Your task to perform on an android device: turn on sleep mode Image 0: 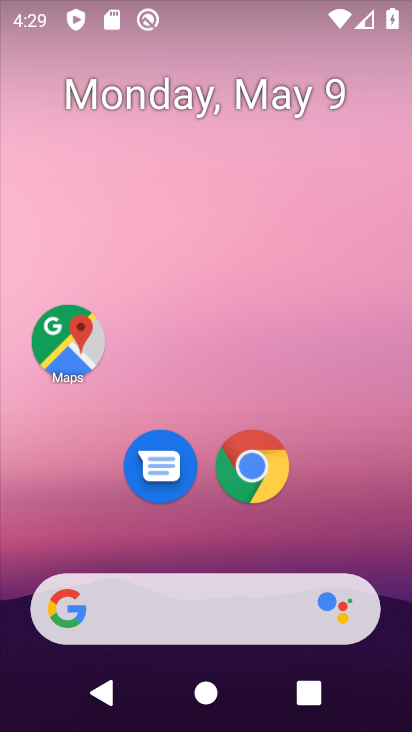
Step 0: drag from (336, 520) to (317, 23)
Your task to perform on an android device: turn on sleep mode Image 1: 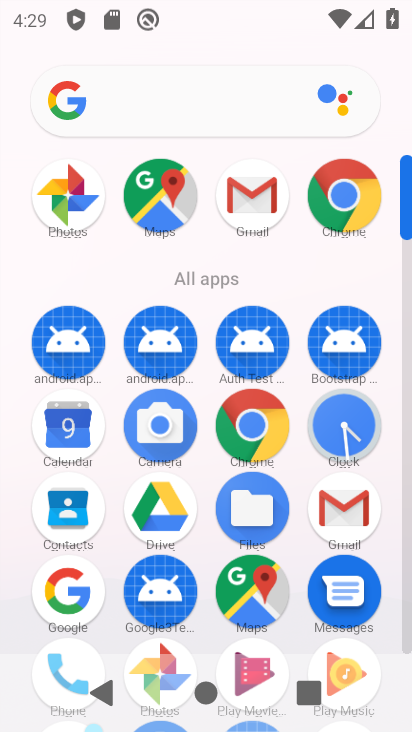
Step 1: drag from (16, 534) to (18, 217)
Your task to perform on an android device: turn on sleep mode Image 2: 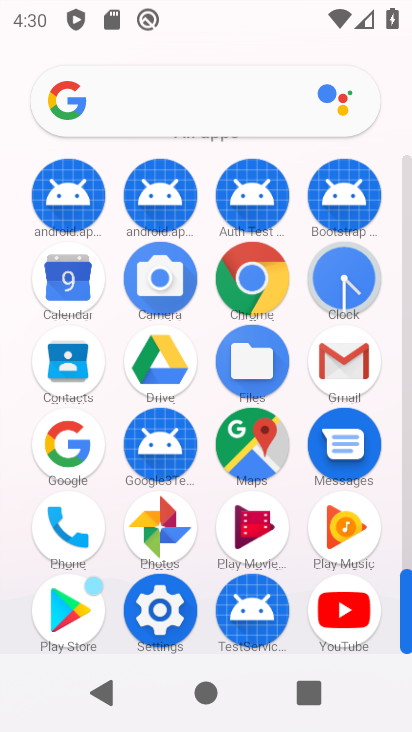
Step 2: click (158, 612)
Your task to perform on an android device: turn on sleep mode Image 3: 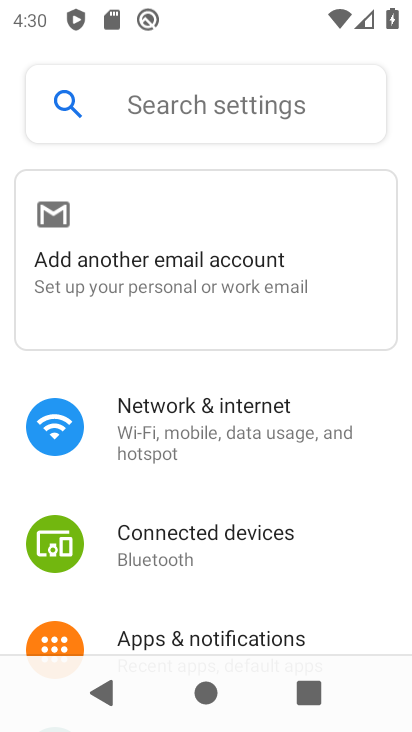
Step 3: drag from (7, 550) to (5, 261)
Your task to perform on an android device: turn on sleep mode Image 4: 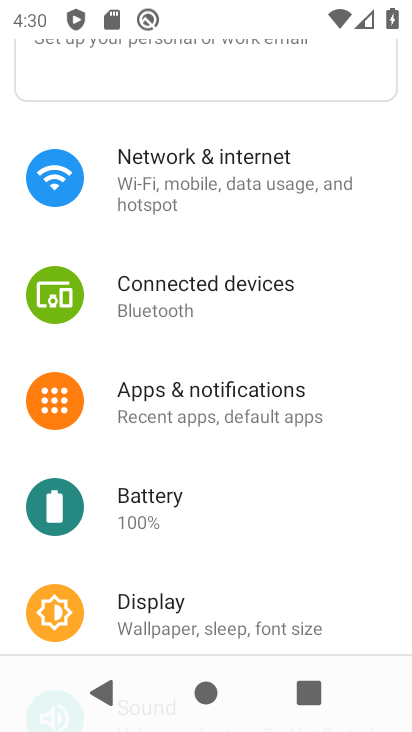
Step 4: drag from (254, 536) to (305, 177)
Your task to perform on an android device: turn on sleep mode Image 5: 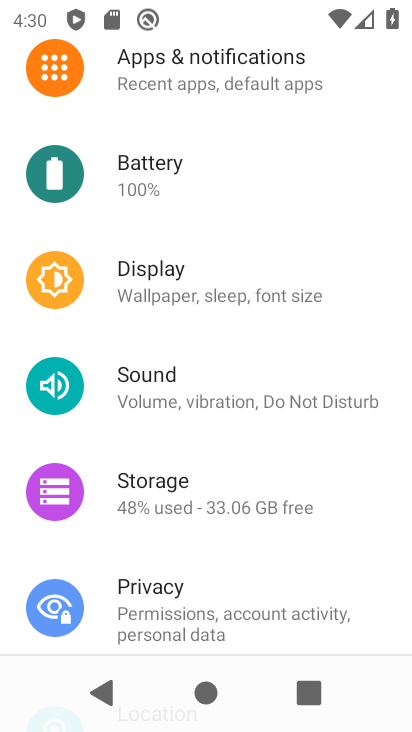
Step 5: drag from (248, 149) to (232, 548)
Your task to perform on an android device: turn on sleep mode Image 6: 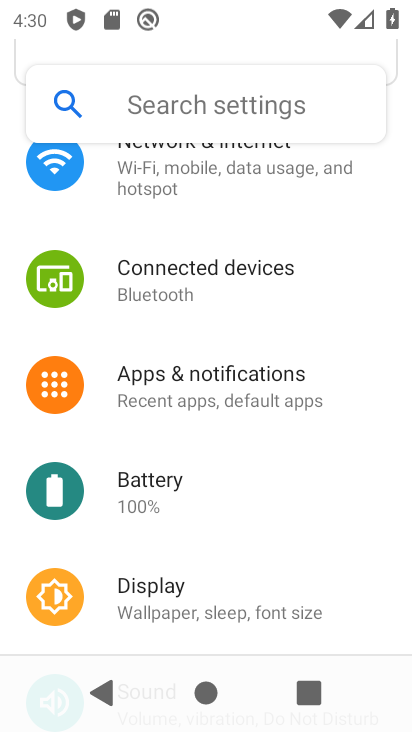
Step 6: drag from (298, 215) to (280, 533)
Your task to perform on an android device: turn on sleep mode Image 7: 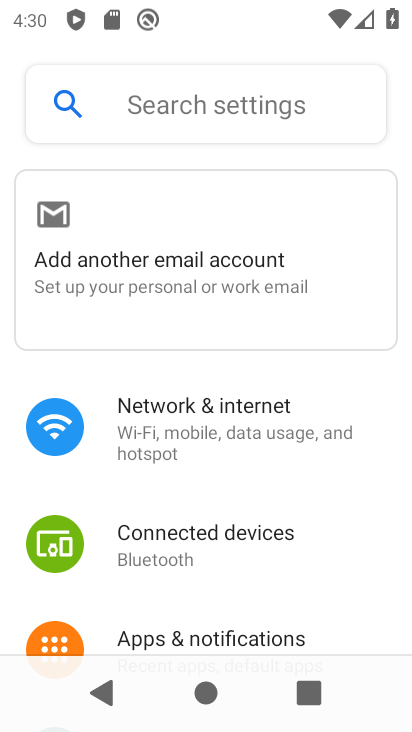
Step 7: drag from (287, 534) to (310, 233)
Your task to perform on an android device: turn on sleep mode Image 8: 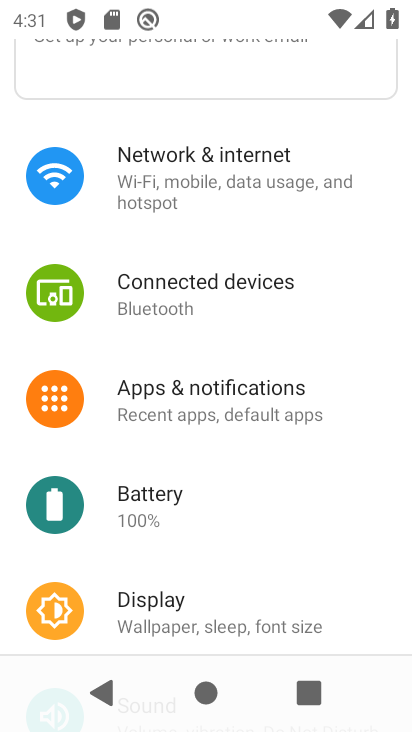
Step 8: drag from (261, 512) to (278, 311)
Your task to perform on an android device: turn on sleep mode Image 9: 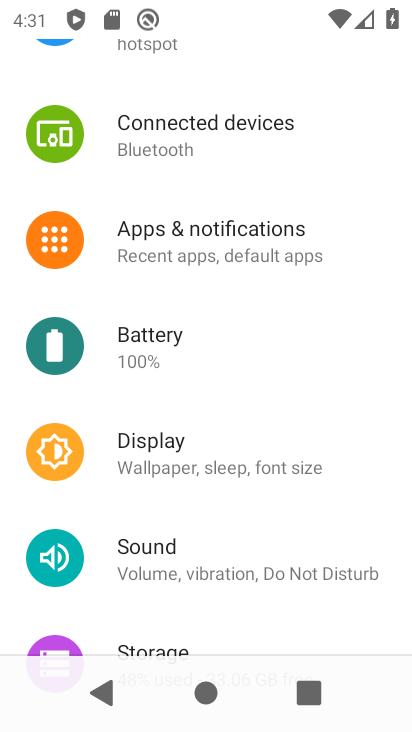
Step 9: drag from (294, 127) to (280, 500)
Your task to perform on an android device: turn on sleep mode Image 10: 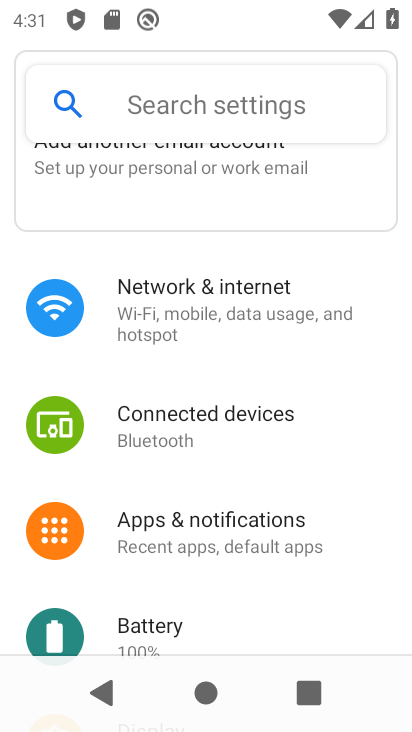
Step 10: drag from (287, 536) to (320, 207)
Your task to perform on an android device: turn on sleep mode Image 11: 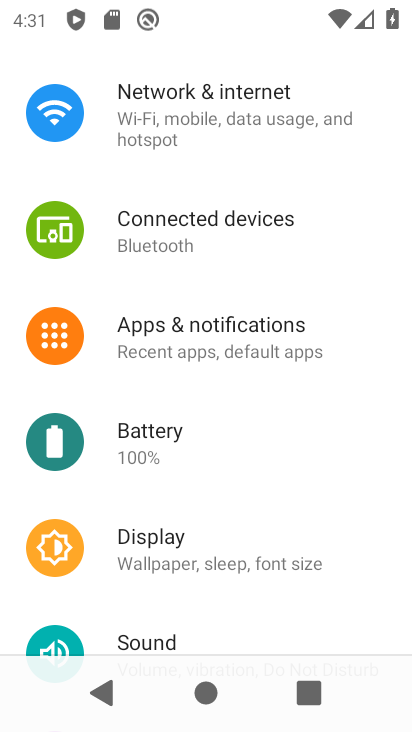
Step 11: drag from (294, 180) to (316, 256)
Your task to perform on an android device: turn on sleep mode Image 12: 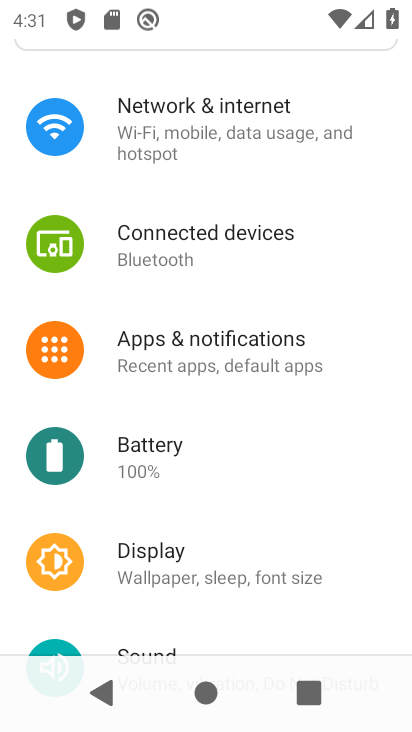
Step 12: drag from (299, 534) to (310, 141)
Your task to perform on an android device: turn on sleep mode Image 13: 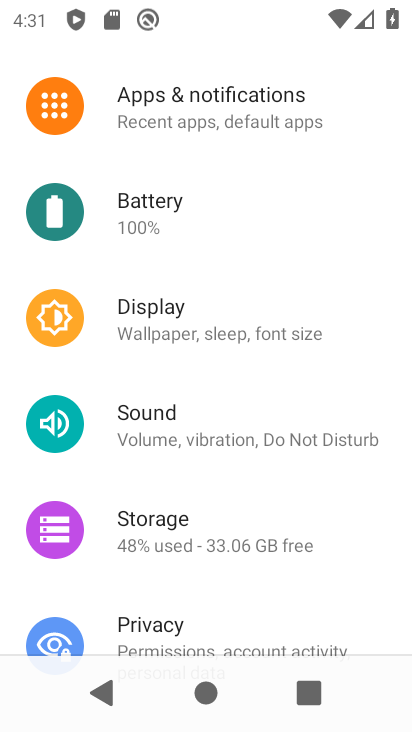
Step 13: drag from (309, 464) to (326, 162)
Your task to perform on an android device: turn on sleep mode Image 14: 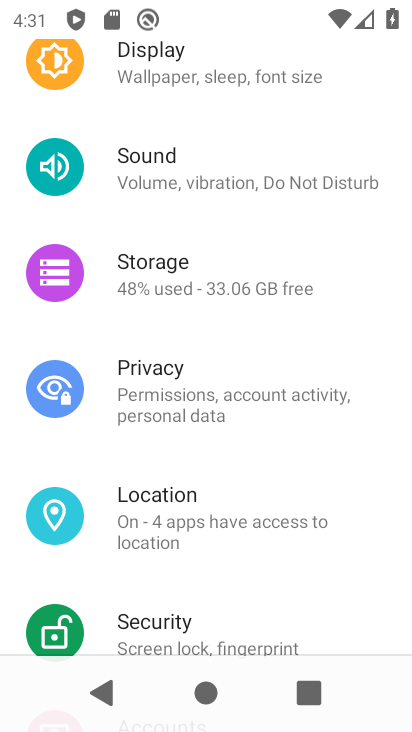
Step 14: drag from (305, 576) to (316, 150)
Your task to perform on an android device: turn on sleep mode Image 15: 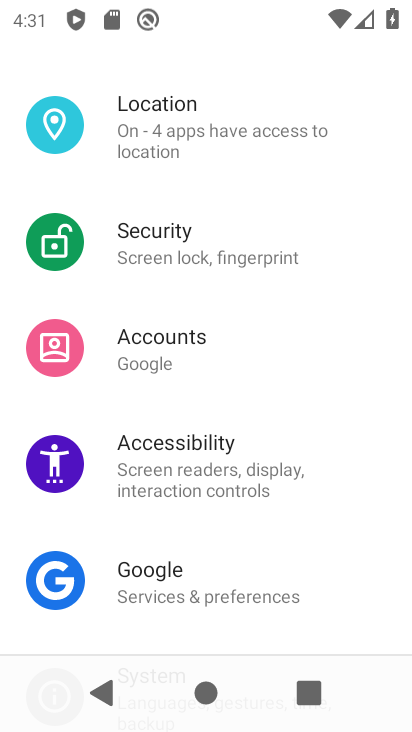
Step 15: drag from (300, 425) to (311, 112)
Your task to perform on an android device: turn on sleep mode Image 16: 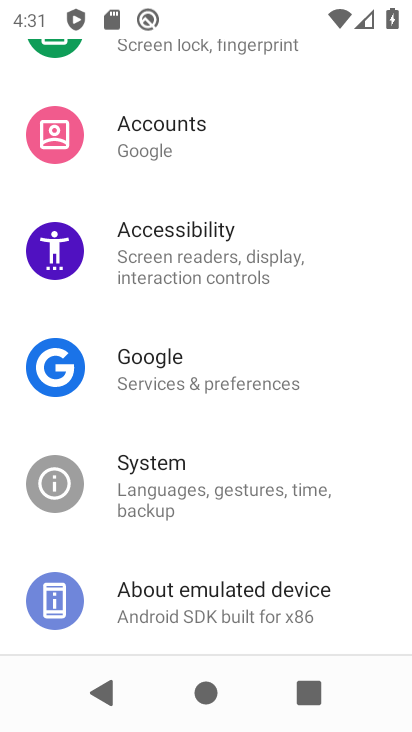
Step 16: drag from (324, 486) to (324, 160)
Your task to perform on an android device: turn on sleep mode Image 17: 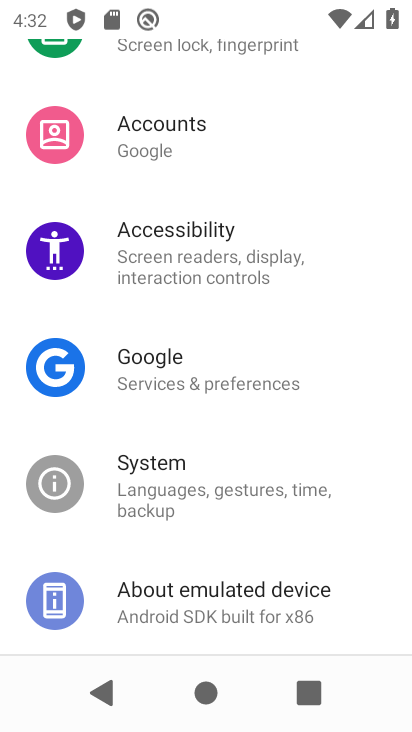
Step 17: drag from (228, 532) to (253, 129)
Your task to perform on an android device: turn on sleep mode Image 18: 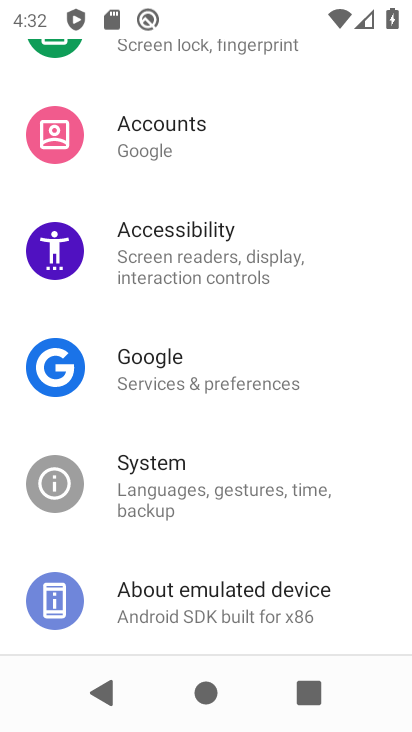
Step 18: drag from (277, 208) to (277, 583)
Your task to perform on an android device: turn on sleep mode Image 19: 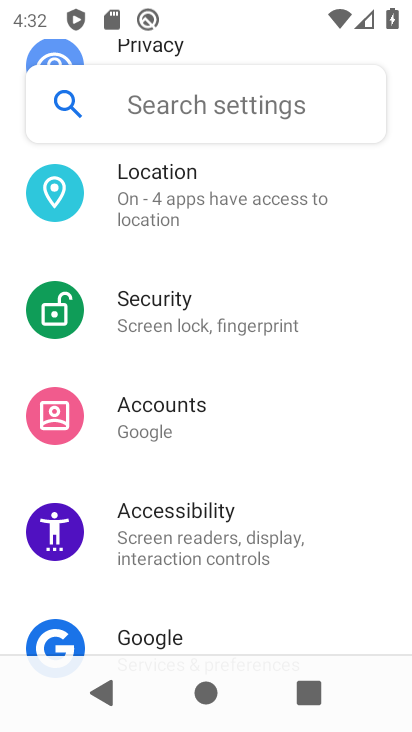
Step 19: drag from (293, 310) to (265, 529)
Your task to perform on an android device: turn on sleep mode Image 20: 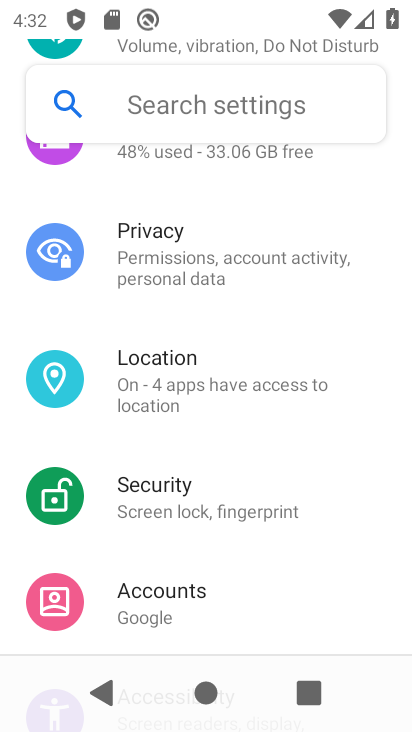
Step 20: drag from (279, 342) to (279, 543)
Your task to perform on an android device: turn on sleep mode Image 21: 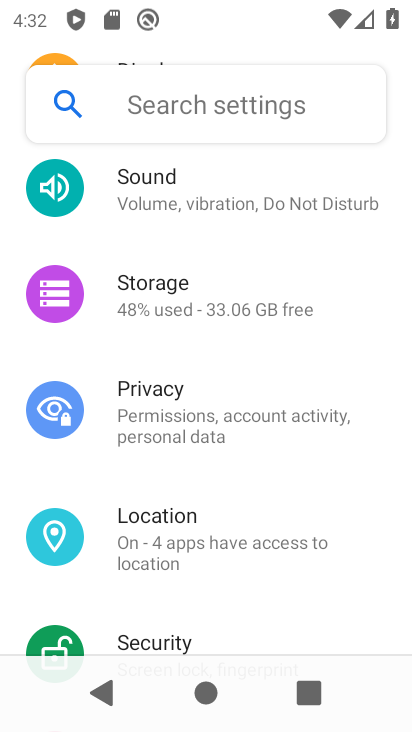
Step 21: drag from (271, 216) to (259, 547)
Your task to perform on an android device: turn on sleep mode Image 22: 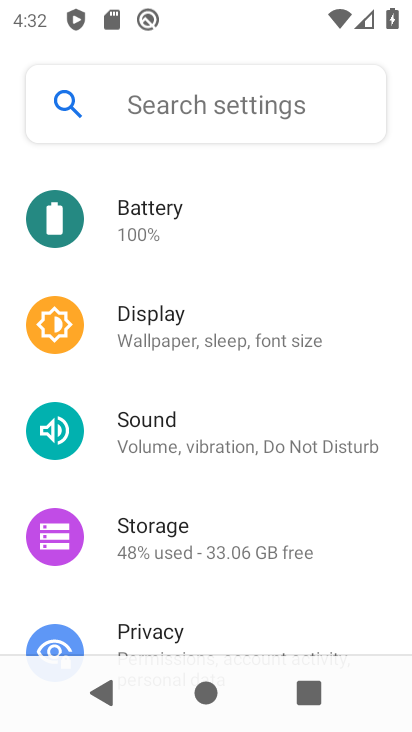
Step 22: click (248, 335)
Your task to perform on an android device: turn on sleep mode Image 23: 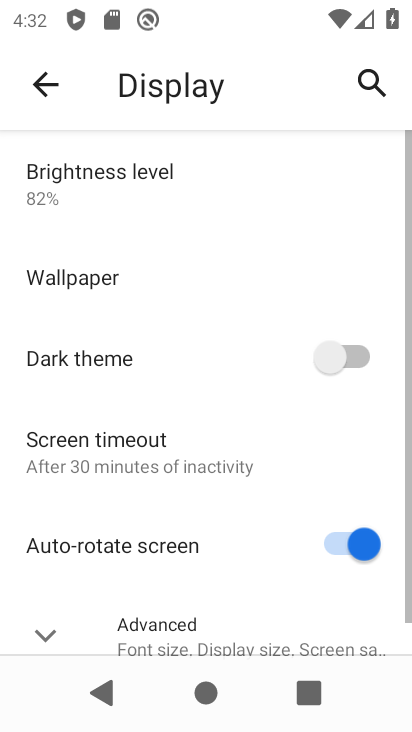
Step 23: task complete